Your task to perform on an android device: What's the weather going to be tomorrow? Image 0: 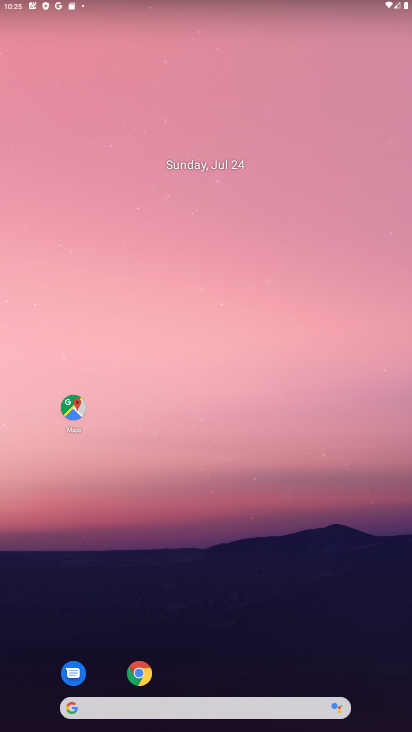
Step 0: click (117, 708)
Your task to perform on an android device: What's the weather going to be tomorrow? Image 1: 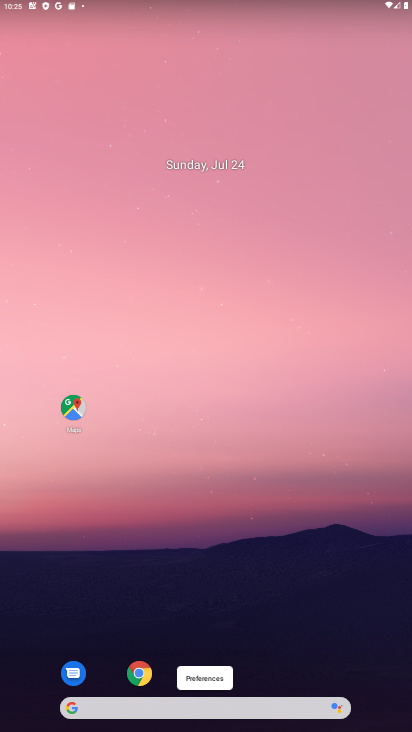
Step 1: click (120, 699)
Your task to perform on an android device: What's the weather going to be tomorrow? Image 2: 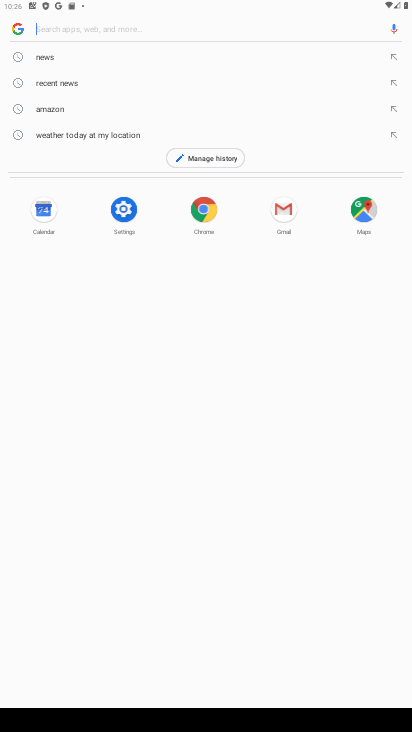
Step 2: type "What's the weather going to be tomorrow?"
Your task to perform on an android device: What's the weather going to be tomorrow? Image 3: 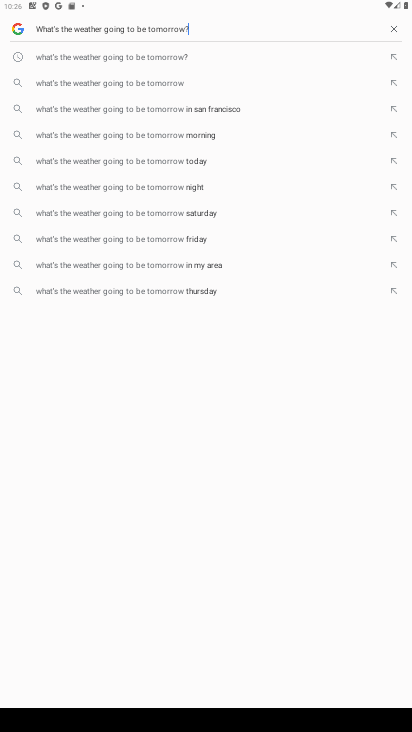
Step 3: type ""
Your task to perform on an android device: What's the weather going to be tomorrow? Image 4: 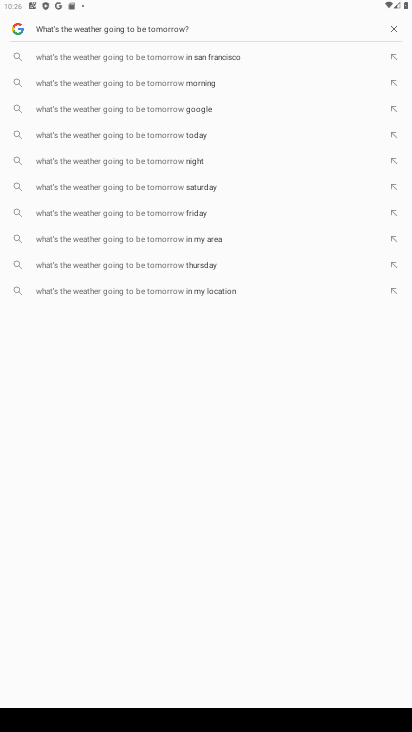
Step 4: type ""
Your task to perform on an android device: What's the weather going to be tomorrow? Image 5: 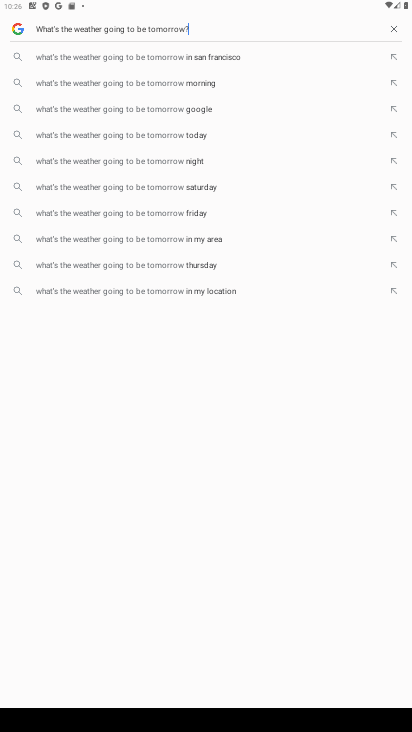
Step 5: type ""
Your task to perform on an android device: What's the weather going to be tomorrow? Image 6: 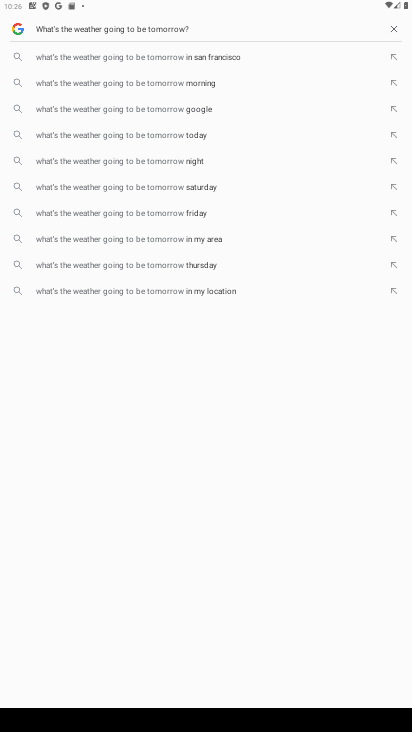
Step 6: task complete